Your task to perform on an android device: turn smart compose on in the gmail app Image 0: 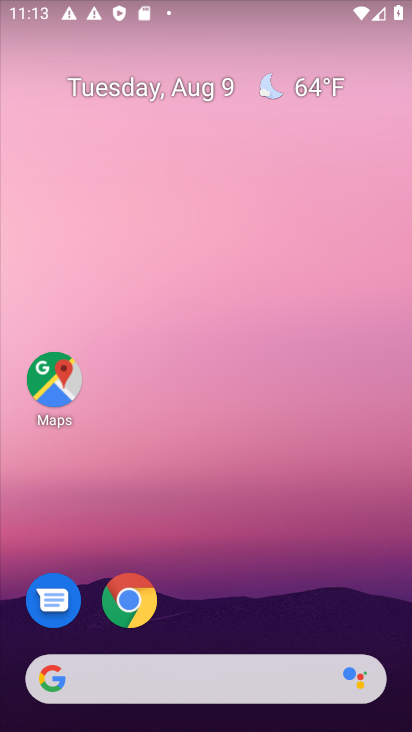
Step 0: drag from (18, 709) to (277, 186)
Your task to perform on an android device: turn smart compose on in the gmail app Image 1: 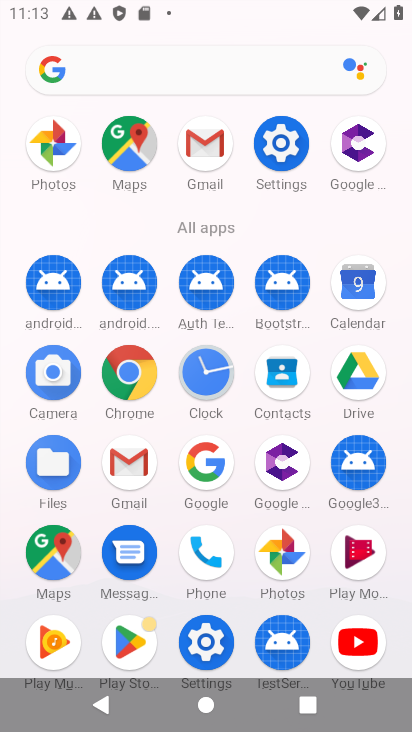
Step 1: click (190, 149)
Your task to perform on an android device: turn smart compose on in the gmail app Image 2: 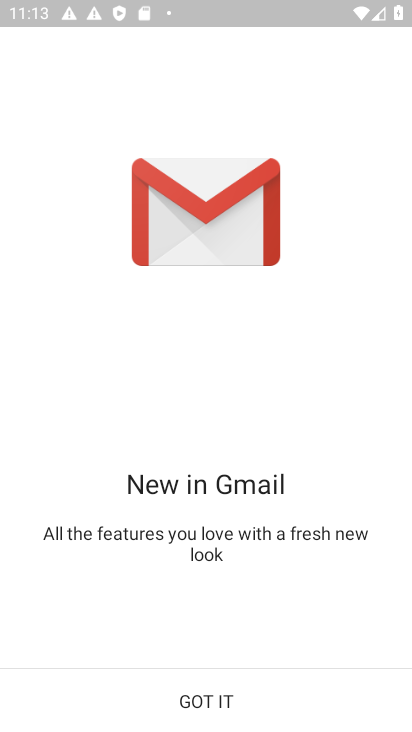
Step 2: click (199, 701)
Your task to perform on an android device: turn smart compose on in the gmail app Image 3: 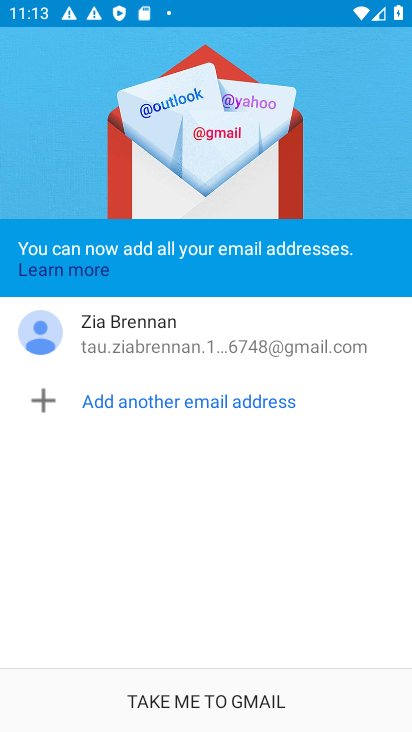
Step 3: click (210, 696)
Your task to perform on an android device: turn smart compose on in the gmail app Image 4: 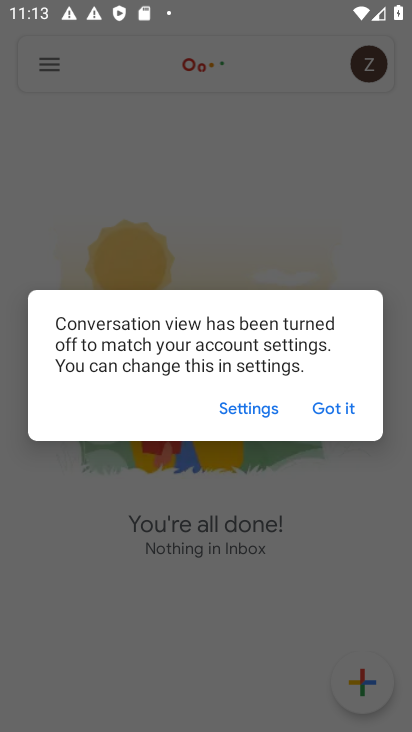
Step 4: click (335, 415)
Your task to perform on an android device: turn smart compose on in the gmail app Image 5: 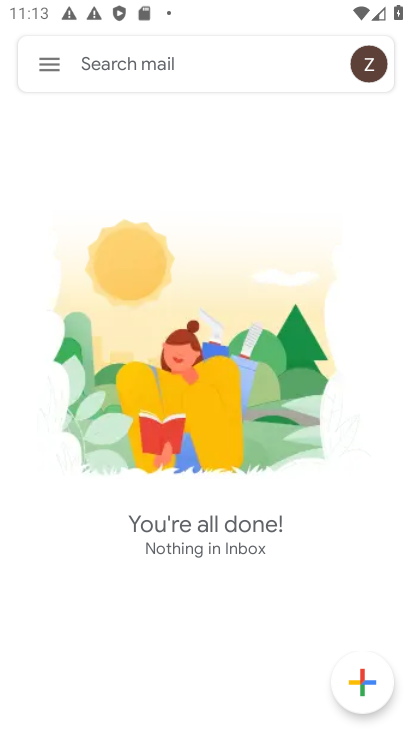
Step 5: click (52, 70)
Your task to perform on an android device: turn smart compose on in the gmail app Image 6: 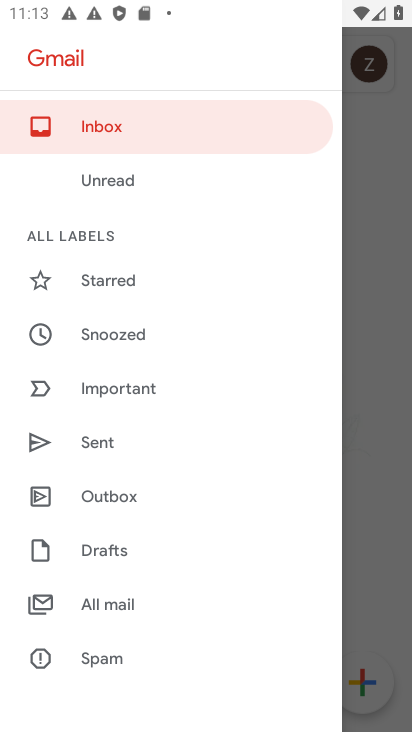
Step 6: drag from (218, 638) to (165, 233)
Your task to perform on an android device: turn smart compose on in the gmail app Image 7: 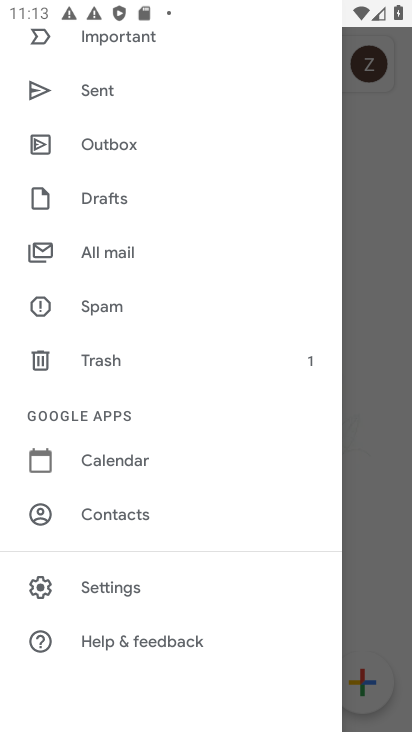
Step 7: click (98, 586)
Your task to perform on an android device: turn smart compose on in the gmail app Image 8: 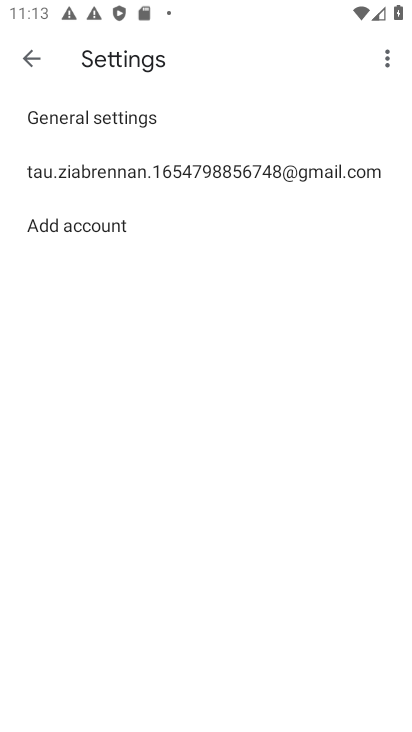
Step 8: click (130, 179)
Your task to perform on an android device: turn smart compose on in the gmail app Image 9: 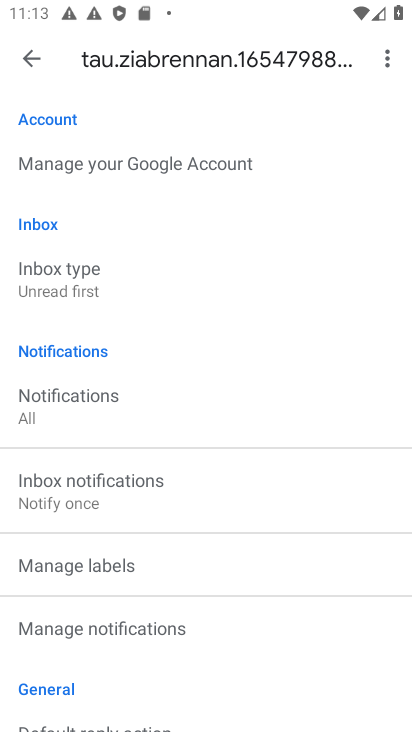
Step 9: click (72, 288)
Your task to perform on an android device: turn smart compose on in the gmail app Image 10: 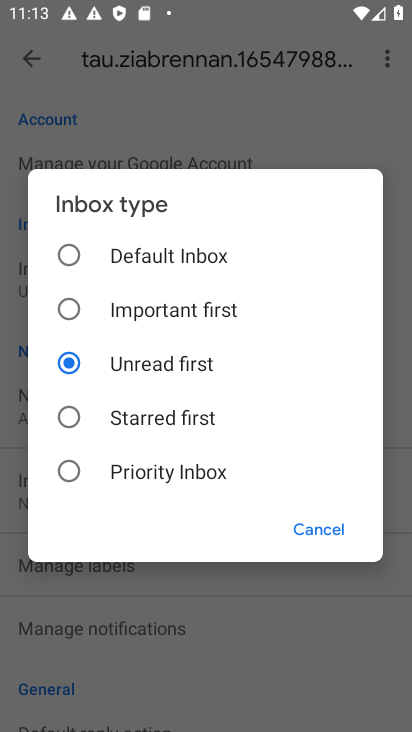
Step 10: click (293, 610)
Your task to perform on an android device: turn smart compose on in the gmail app Image 11: 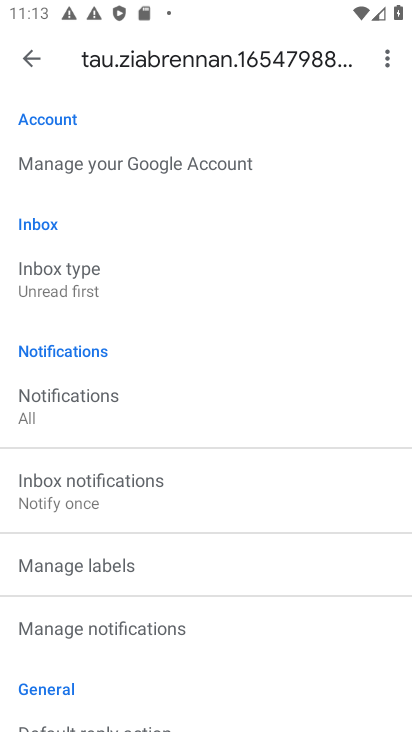
Step 11: task complete